Your task to perform on an android device: find snoozed emails in the gmail app Image 0: 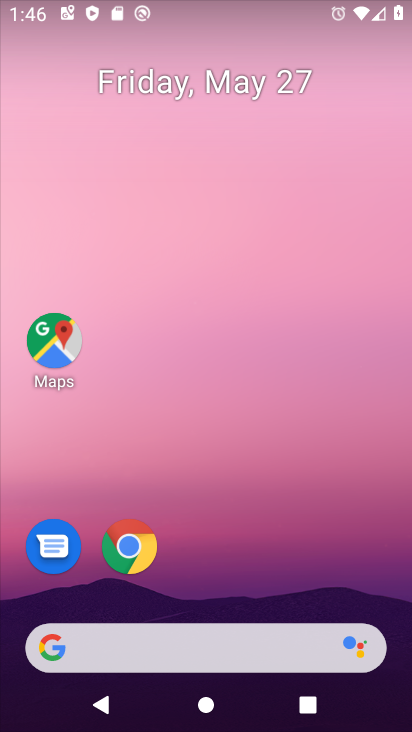
Step 0: drag from (262, 644) to (378, 181)
Your task to perform on an android device: find snoozed emails in the gmail app Image 1: 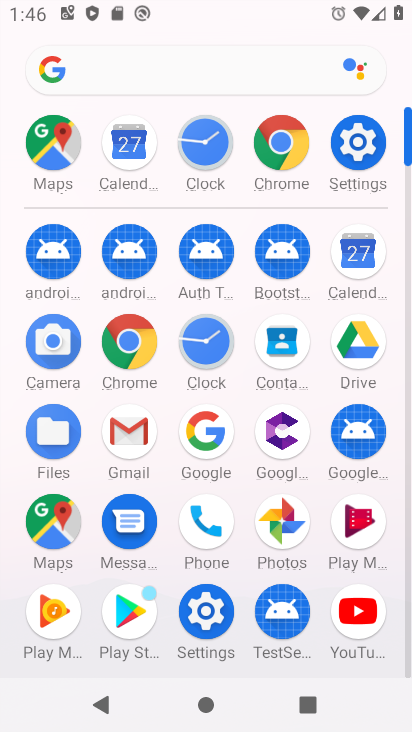
Step 1: click (137, 423)
Your task to perform on an android device: find snoozed emails in the gmail app Image 2: 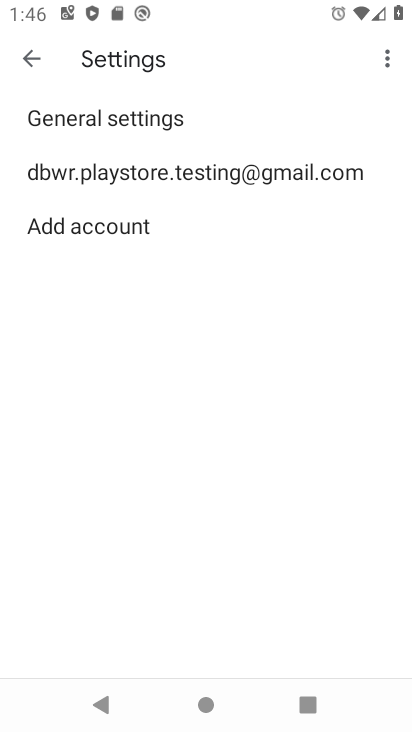
Step 2: click (24, 71)
Your task to perform on an android device: find snoozed emails in the gmail app Image 3: 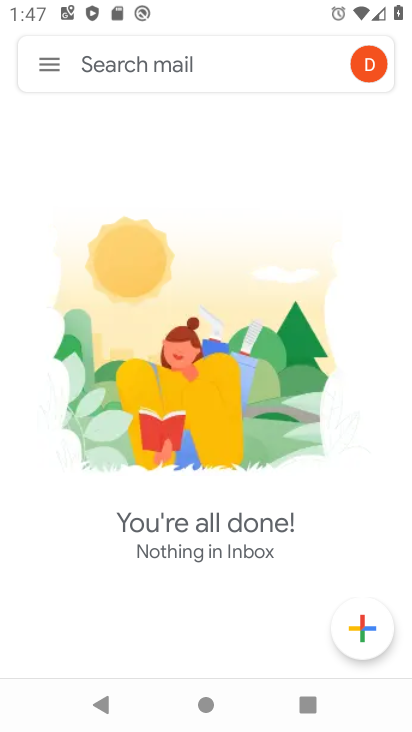
Step 3: click (34, 67)
Your task to perform on an android device: find snoozed emails in the gmail app Image 4: 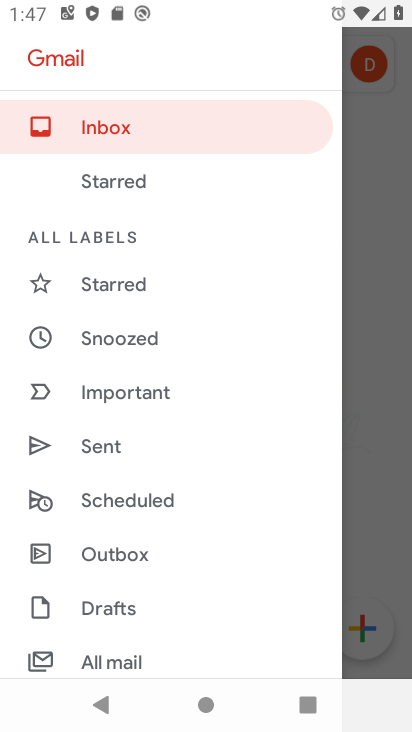
Step 4: click (96, 324)
Your task to perform on an android device: find snoozed emails in the gmail app Image 5: 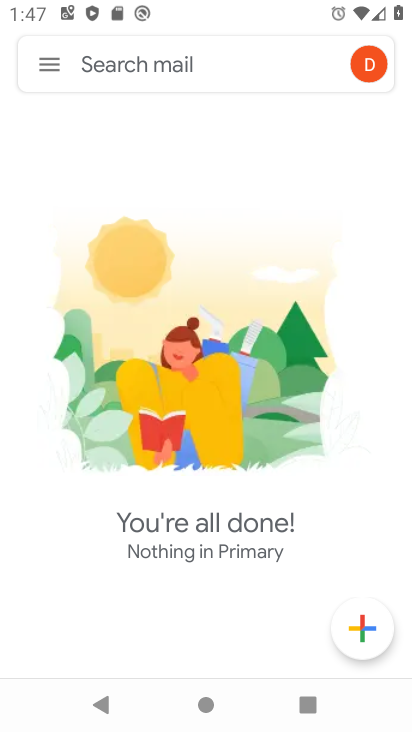
Step 5: task complete